Your task to perform on an android device: Is it going to rain tomorrow? Image 0: 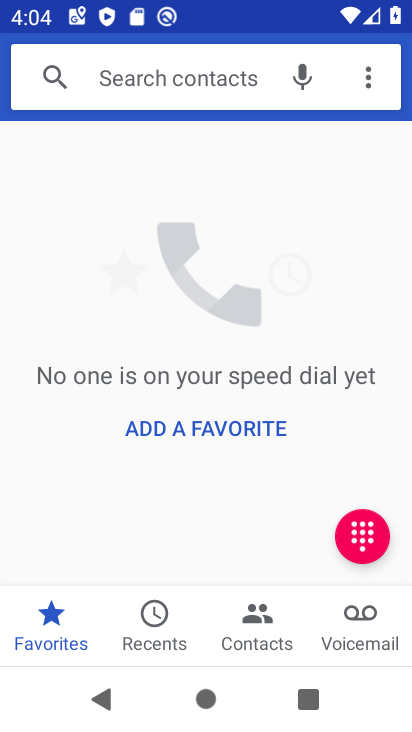
Step 0: press home button
Your task to perform on an android device: Is it going to rain tomorrow? Image 1: 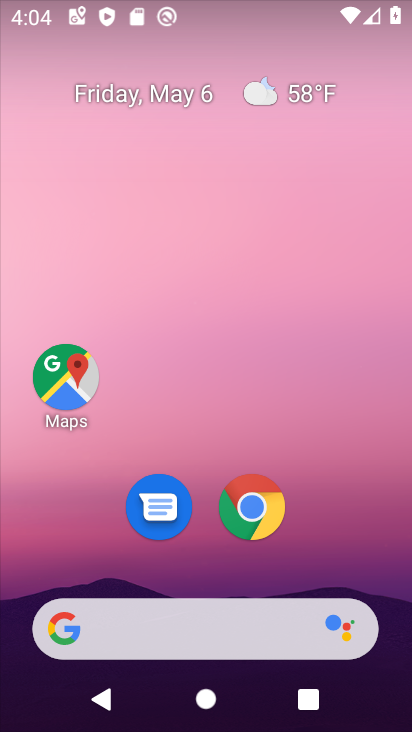
Step 1: click (254, 710)
Your task to perform on an android device: Is it going to rain tomorrow? Image 2: 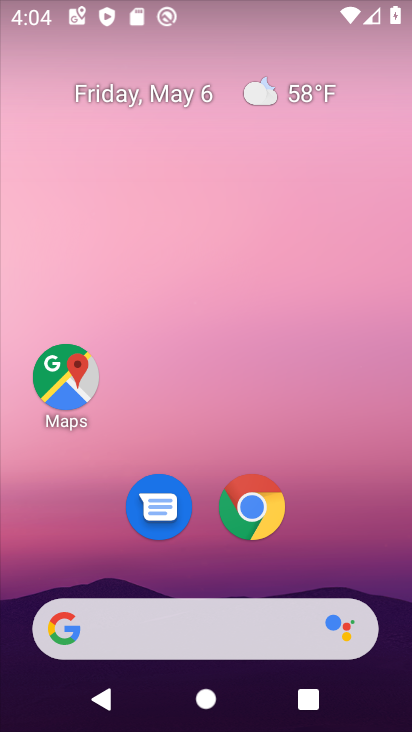
Step 2: click (236, 623)
Your task to perform on an android device: Is it going to rain tomorrow? Image 3: 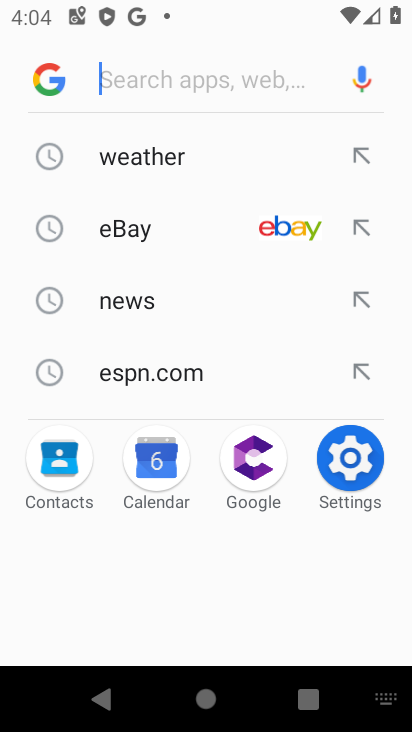
Step 3: click (189, 70)
Your task to perform on an android device: Is it going to rain tomorrow? Image 4: 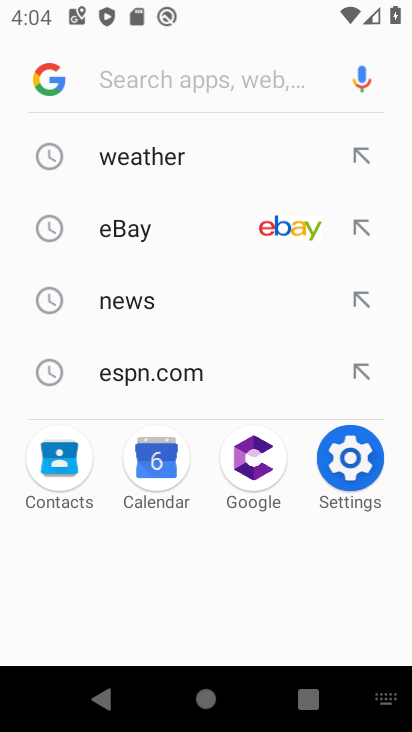
Step 4: type "Is it going to rain tomorrow?"
Your task to perform on an android device: Is it going to rain tomorrow? Image 5: 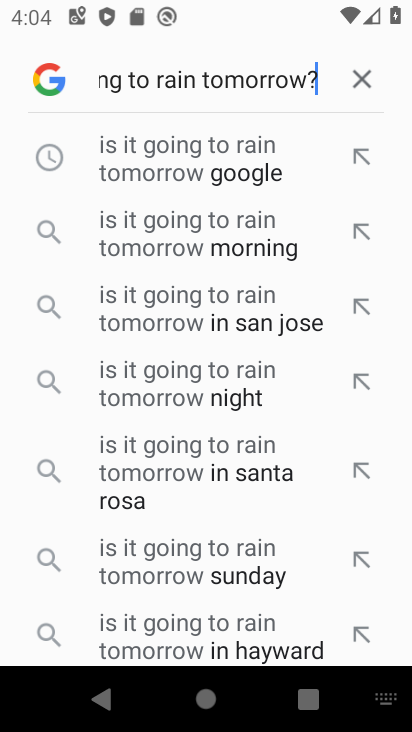
Step 5: press enter
Your task to perform on an android device: Is it going to rain tomorrow? Image 6: 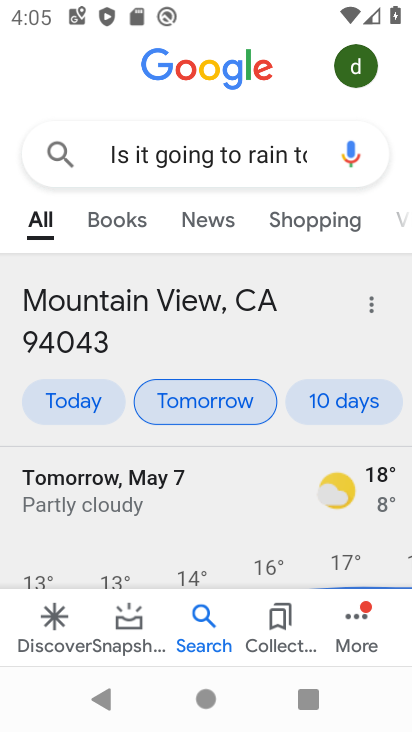
Step 6: task complete